Your task to perform on an android device: Go to CNN.com Image 0: 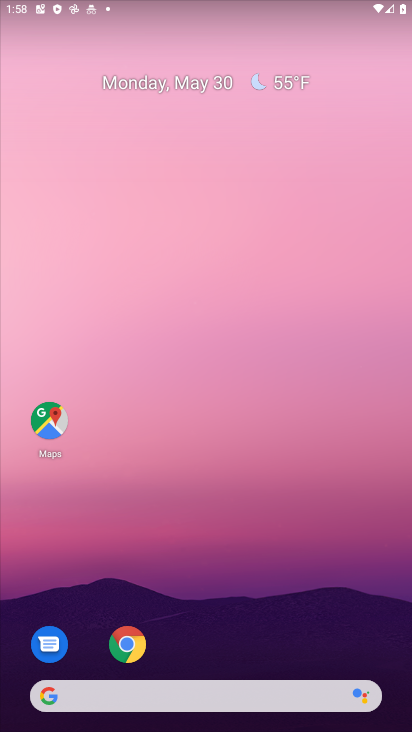
Step 0: click (295, 689)
Your task to perform on an android device: Go to CNN.com Image 1: 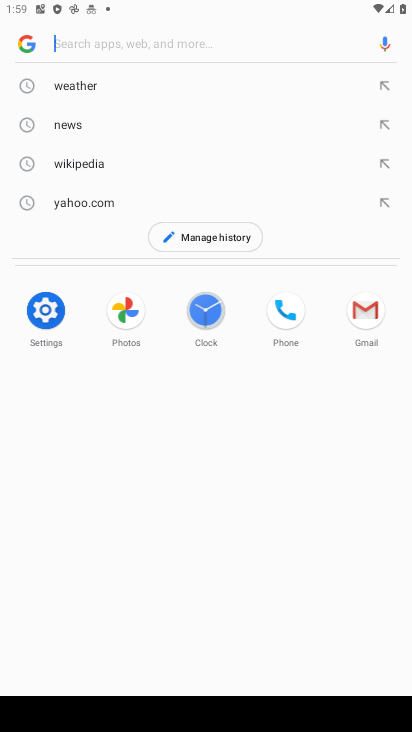
Step 1: type "cnn.com"
Your task to perform on an android device: Go to CNN.com Image 2: 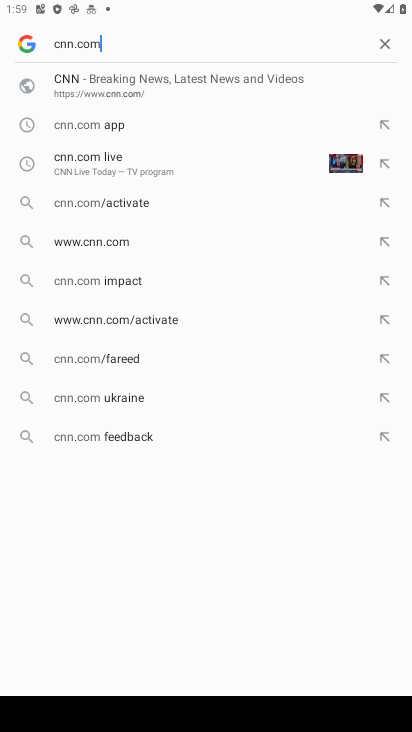
Step 2: click (169, 94)
Your task to perform on an android device: Go to CNN.com Image 3: 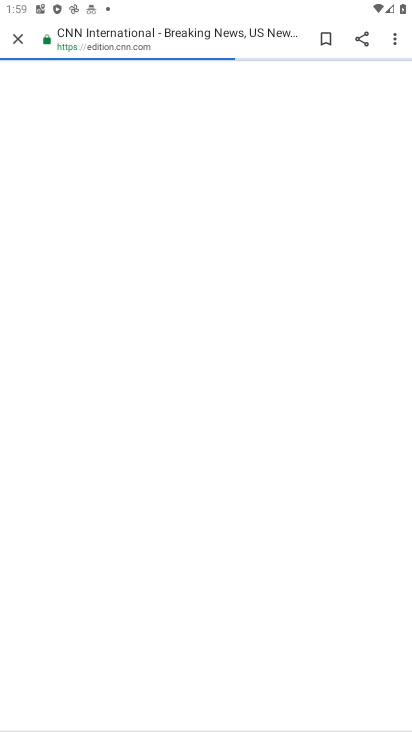
Step 3: task complete